Your task to perform on an android device: Open the calendar app, open the side menu, and click the "Day" option Image 0: 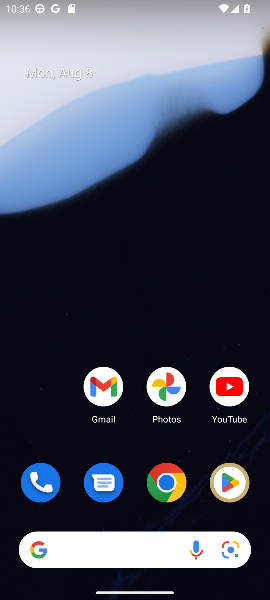
Step 0: drag from (127, 442) to (149, 6)
Your task to perform on an android device: Open the calendar app, open the side menu, and click the "Day" option Image 1: 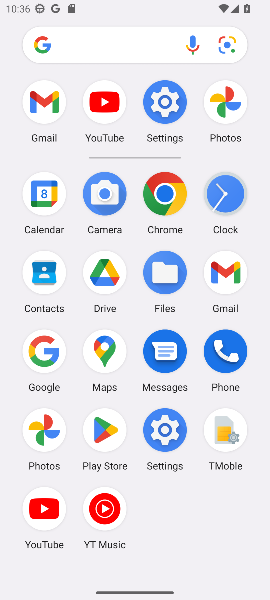
Step 1: click (39, 205)
Your task to perform on an android device: Open the calendar app, open the side menu, and click the "Day" option Image 2: 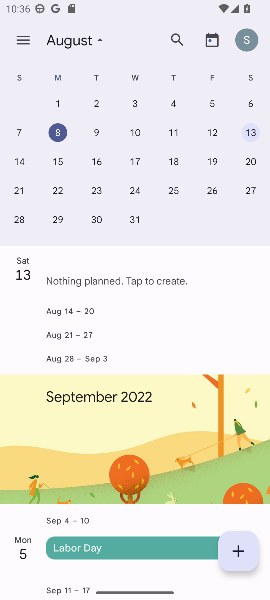
Step 2: click (33, 32)
Your task to perform on an android device: Open the calendar app, open the side menu, and click the "Day" option Image 3: 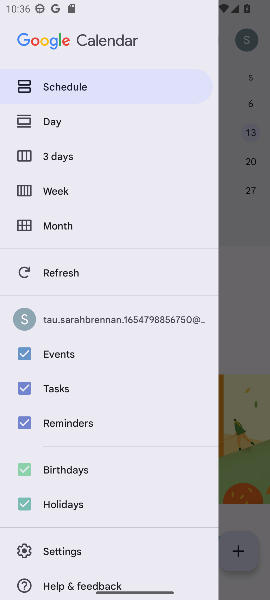
Step 3: click (53, 120)
Your task to perform on an android device: Open the calendar app, open the side menu, and click the "Day" option Image 4: 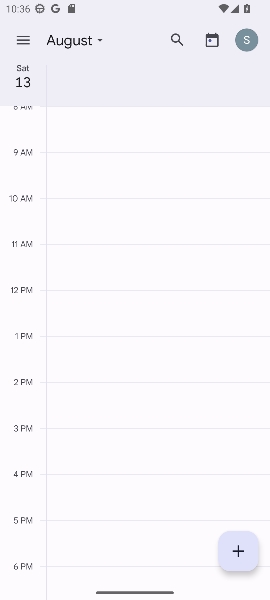
Step 4: task complete